Your task to perform on an android device: show emergency info Image 0: 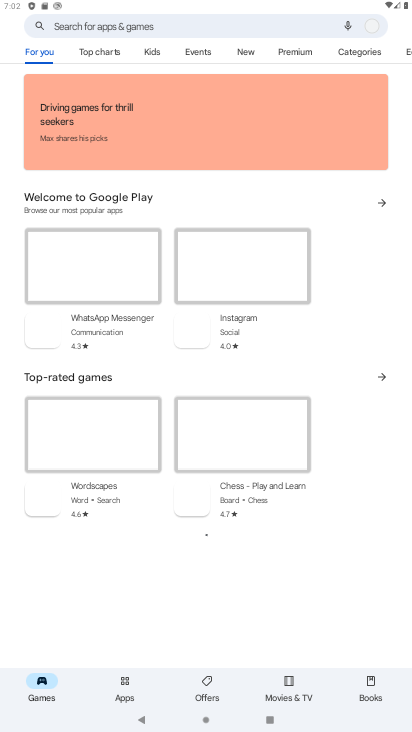
Step 0: press home button
Your task to perform on an android device: show emergency info Image 1: 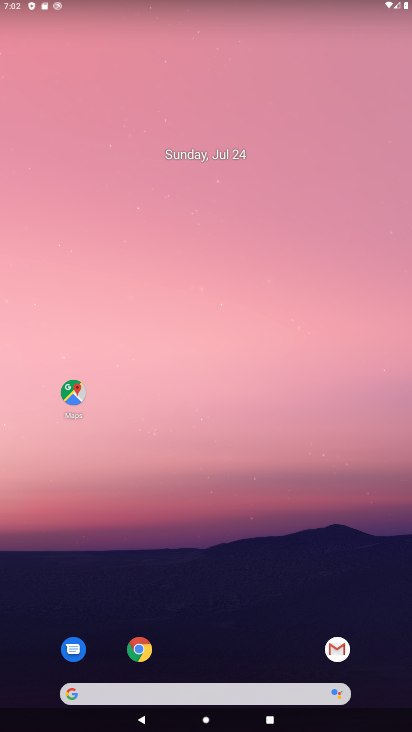
Step 1: drag from (226, 647) to (273, 282)
Your task to perform on an android device: show emergency info Image 2: 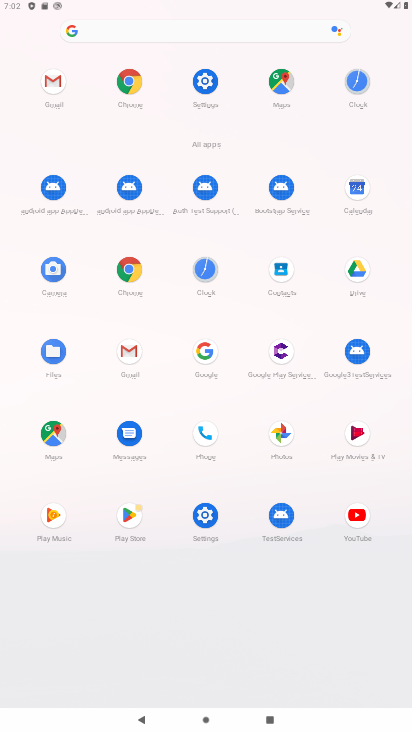
Step 2: drag from (202, 82) to (249, 676)
Your task to perform on an android device: show emergency info Image 3: 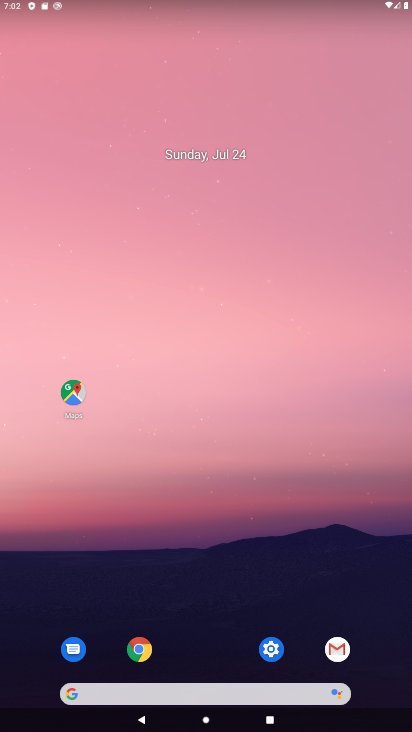
Step 3: click (272, 648)
Your task to perform on an android device: show emergency info Image 4: 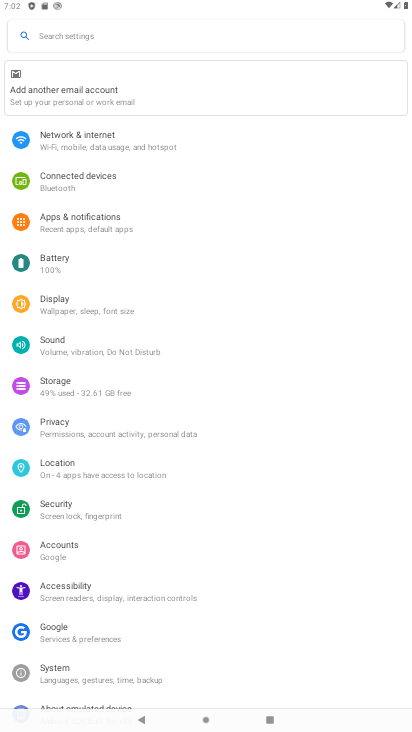
Step 4: click (85, 25)
Your task to perform on an android device: show emergency info Image 5: 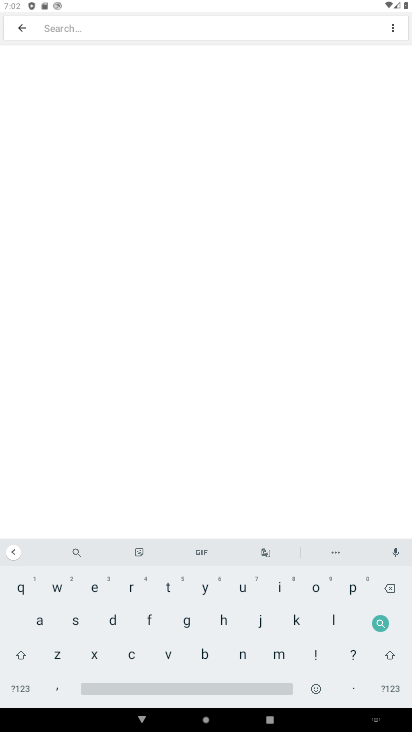
Step 5: click (92, 587)
Your task to perform on an android device: show emergency info Image 6: 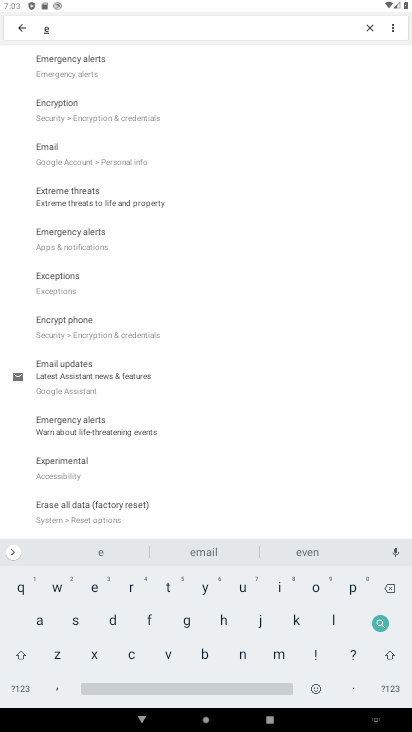
Step 6: click (280, 656)
Your task to perform on an android device: show emergency info Image 7: 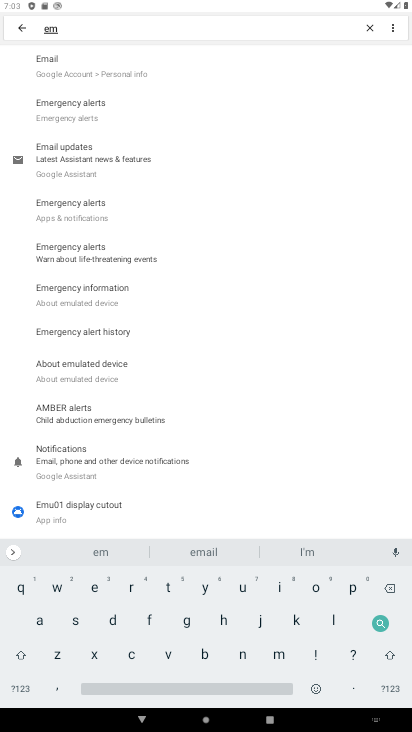
Step 7: click (119, 290)
Your task to perform on an android device: show emergency info Image 8: 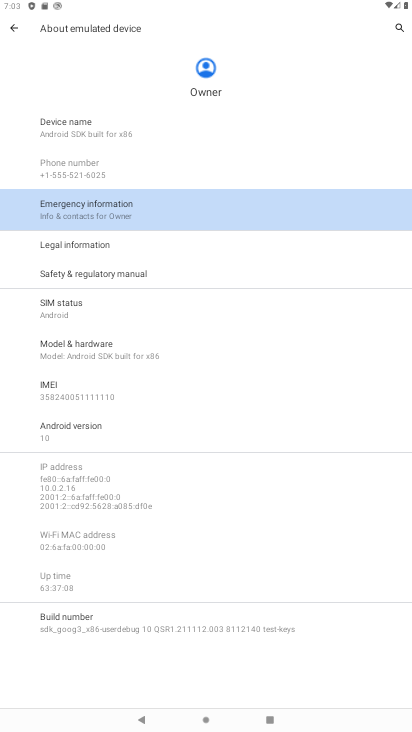
Step 8: click (100, 195)
Your task to perform on an android device: show emergency info Image 9: 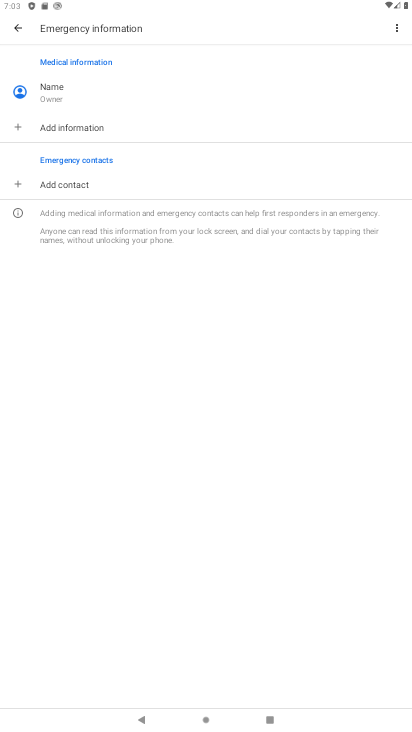
Step 9: task complete